Your task to perform on an android device: Check the news Image 0: 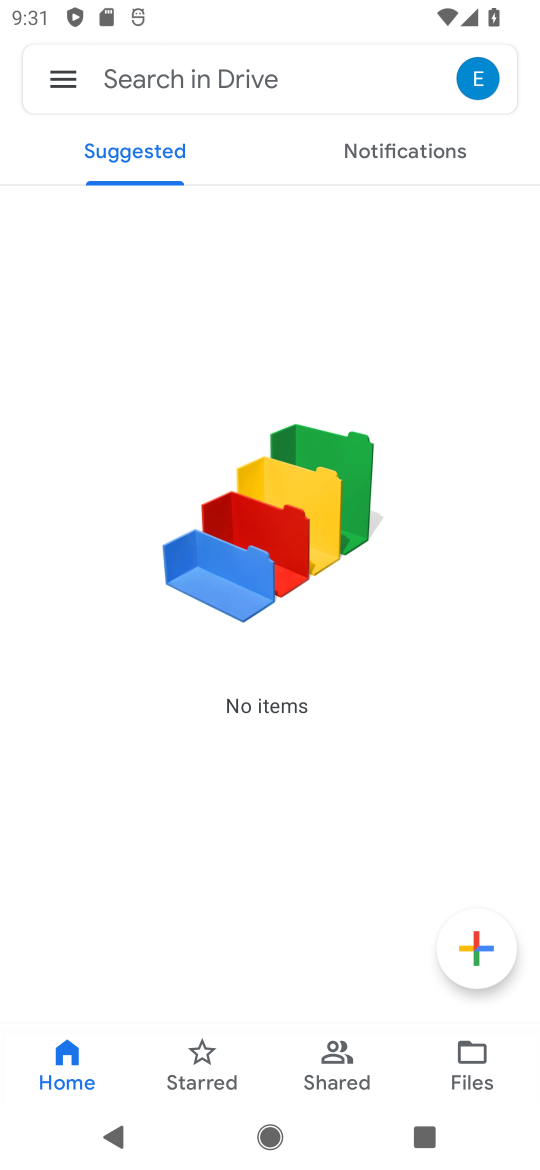
Step 0: press home button
Your task to perform on an android device: Check the news Image 1: 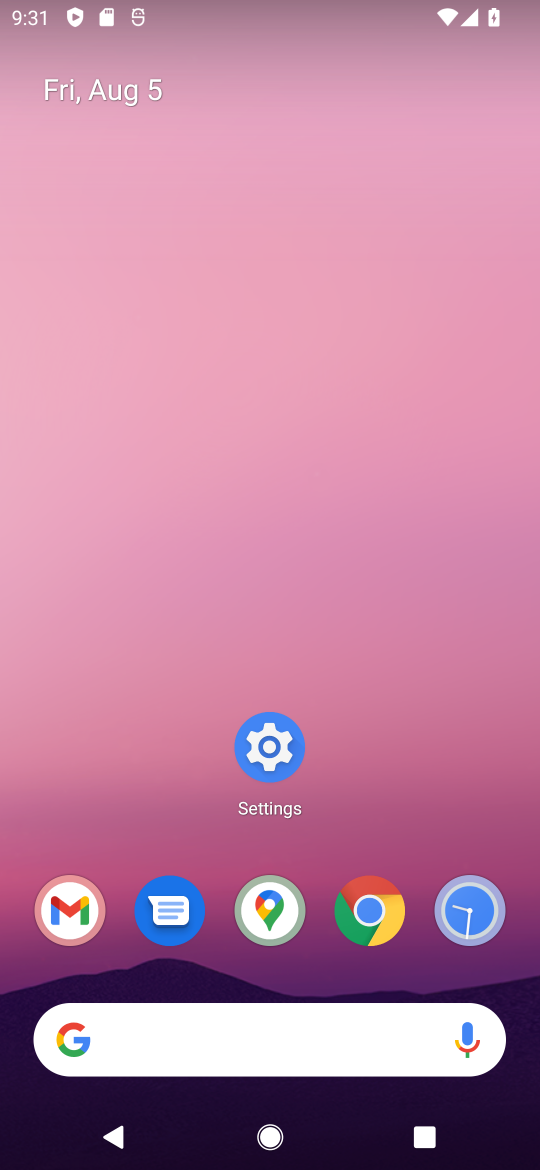
Step 1: click (208, 1045)
Your task to perform on an android device: Check the news Image 2: 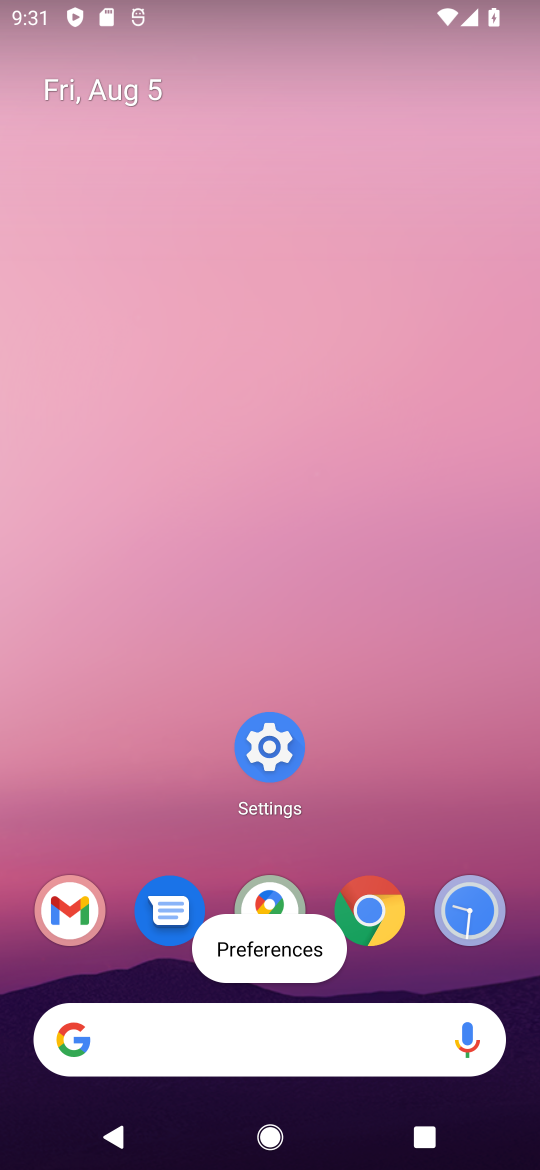
Step 2: click (241, 1027)
Your task to perform on an android device: Check the news Image 3: 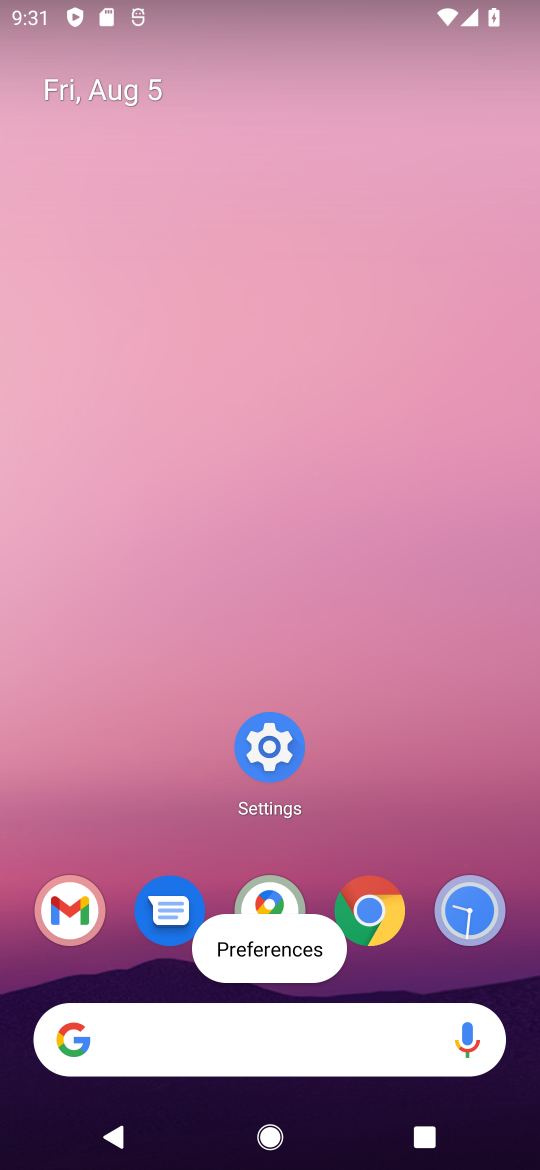
Step 3: click (241, 1036)
Your task to perform on an android device: Check the news Image 4: 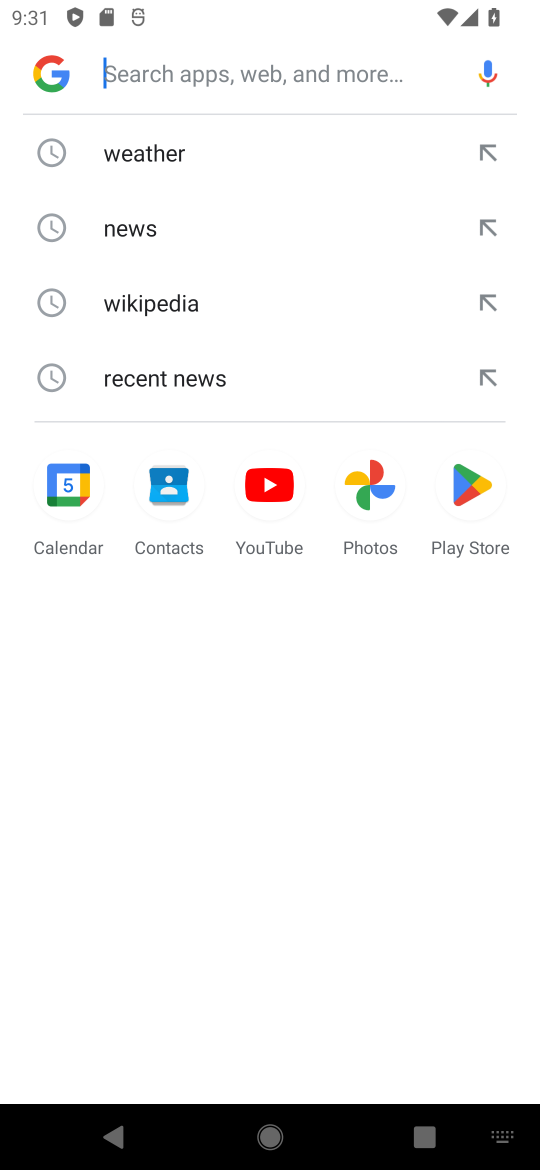
Step 4: click (264, 231)
Your task to perform on an android device: Check the news Image 5: 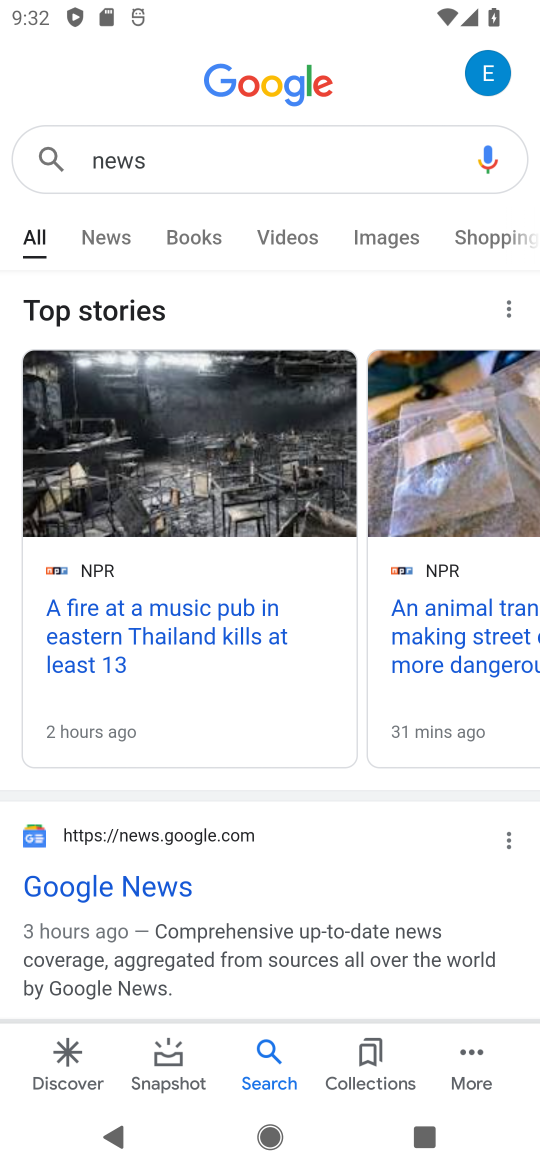
Step 5: click (119, 231)
Your task to perform on an android device: Check the news Image 6: 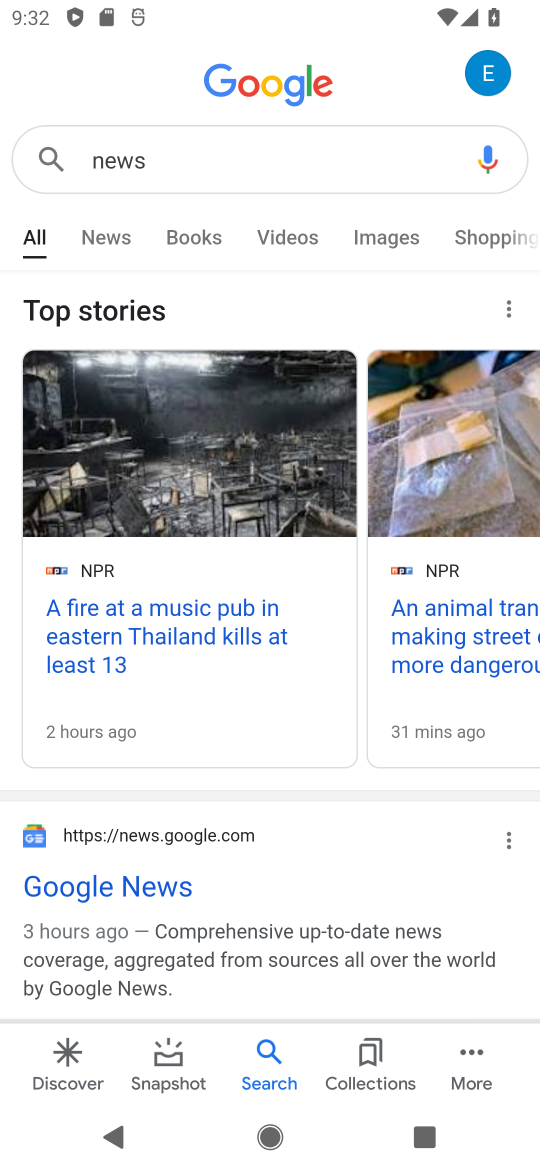
Step 6: click (119, 235)
Your task to perform on an android device: Check the news Image 7: 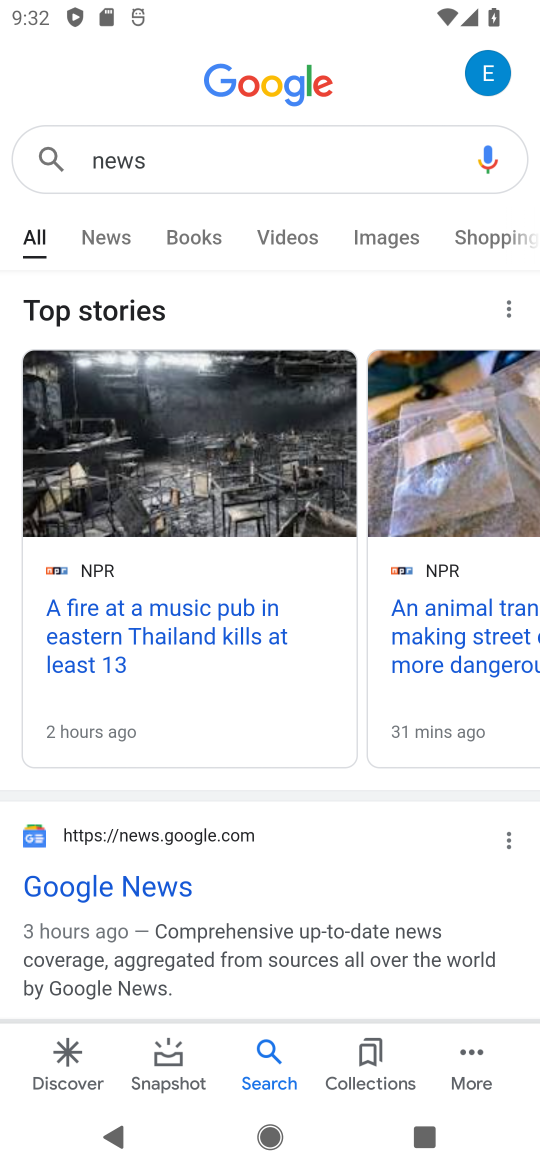
Step 7: click (120, 239)
Your task to perform on an android device: Check the news Image 8: 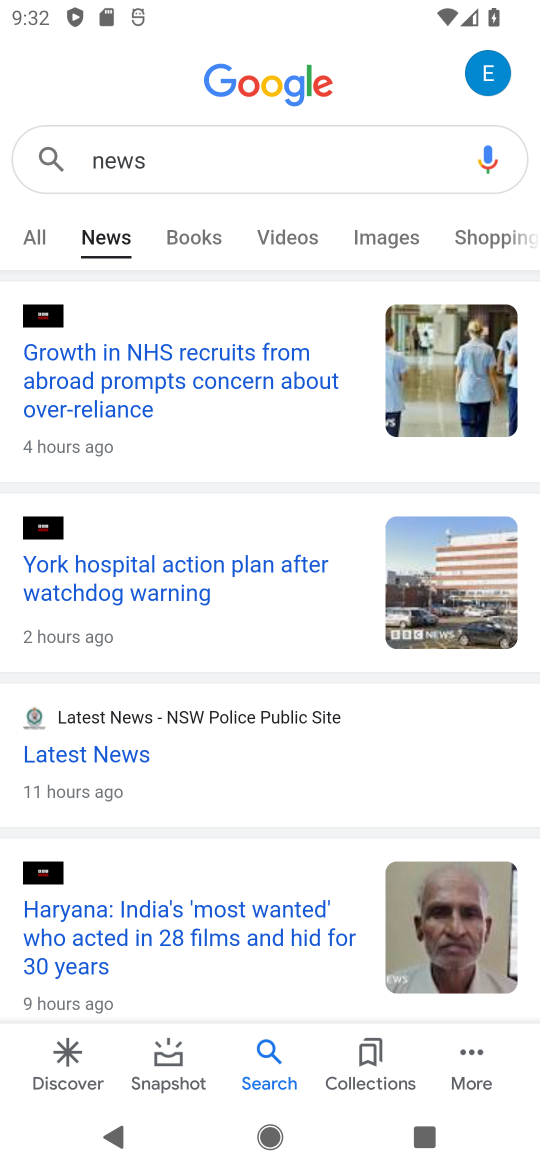
Step 8: task complete